Your task to perform on an android device: make emails show in primary in the gmail app Image 0: 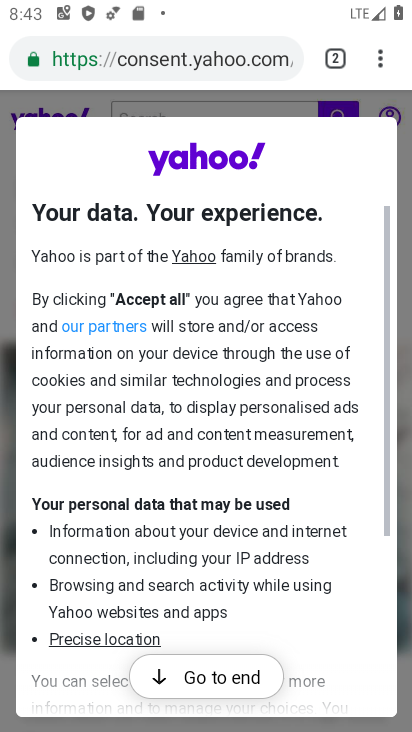
Step 0: press home button
Your task to perform on an android device: make emails show in primary in the gmail app Image 1: 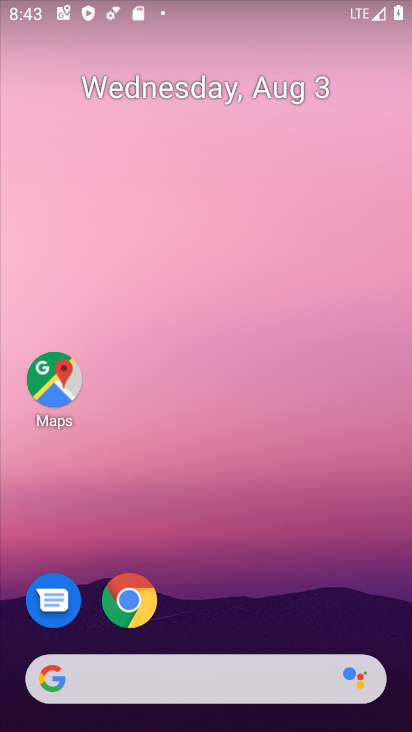
Step 1: drag from (226, 606) to (237, 20)
Your task to perform on an android device: make emails show in primary in the gmail app Image 2: 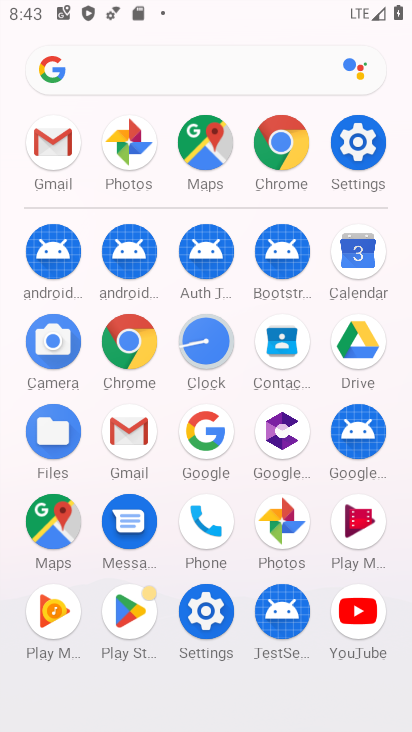
Step 2: click (142, 424)
Your task to perform on an android device: make emails show in primary in the gmail app Image 3: 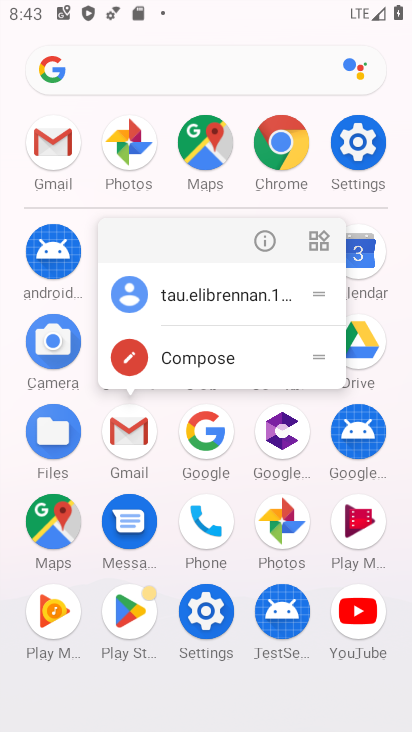
Step 3: click (150, 424)
Your task to perform on an android device: make emails show in primary in the gmail app Image 4: 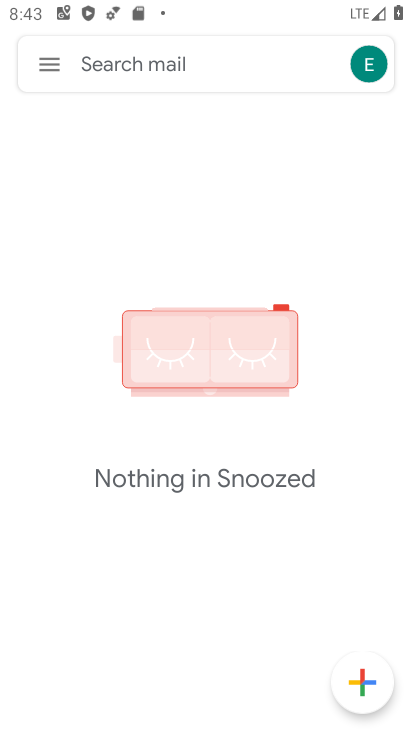
Step 4: click (56, 71)
Your task to perform on an android device: make emails show in primary in the gmail app Image 5: 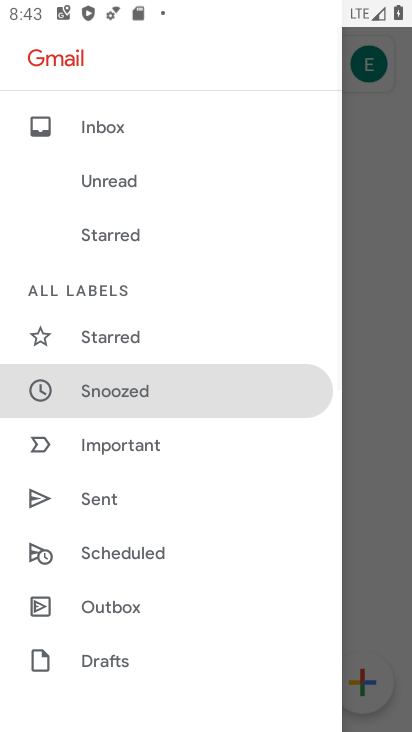
Step 5: drag from (82, 653) to (169, 157)
Your task to perform on an android device: make emails show in primary in the gmail app Image 6: 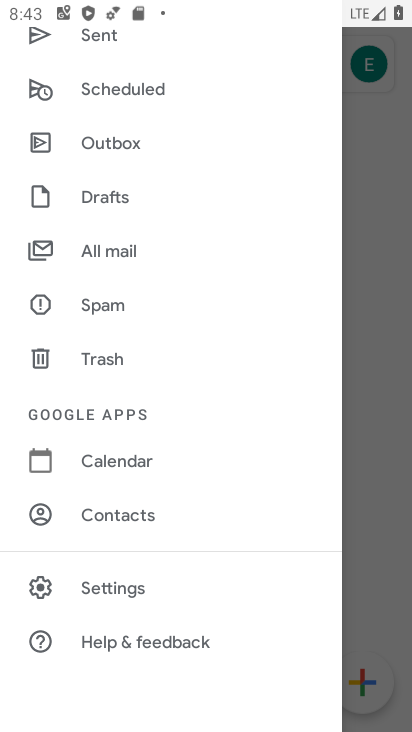
Step 6: click (111, 587)
Your task to perform on an android device: make emails show in primary in the gmail app Image 7: 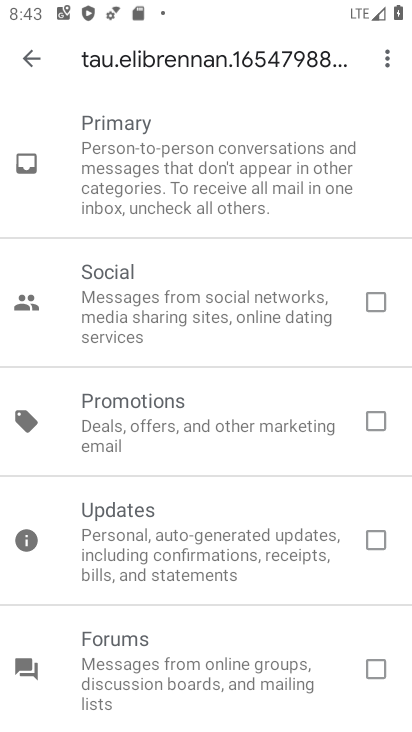
Step 7: task complete